Your task to perform on an android device: Search for "sony triple a" on amazon, select the first entry, add it to the cart, then select checkout. Image 0: 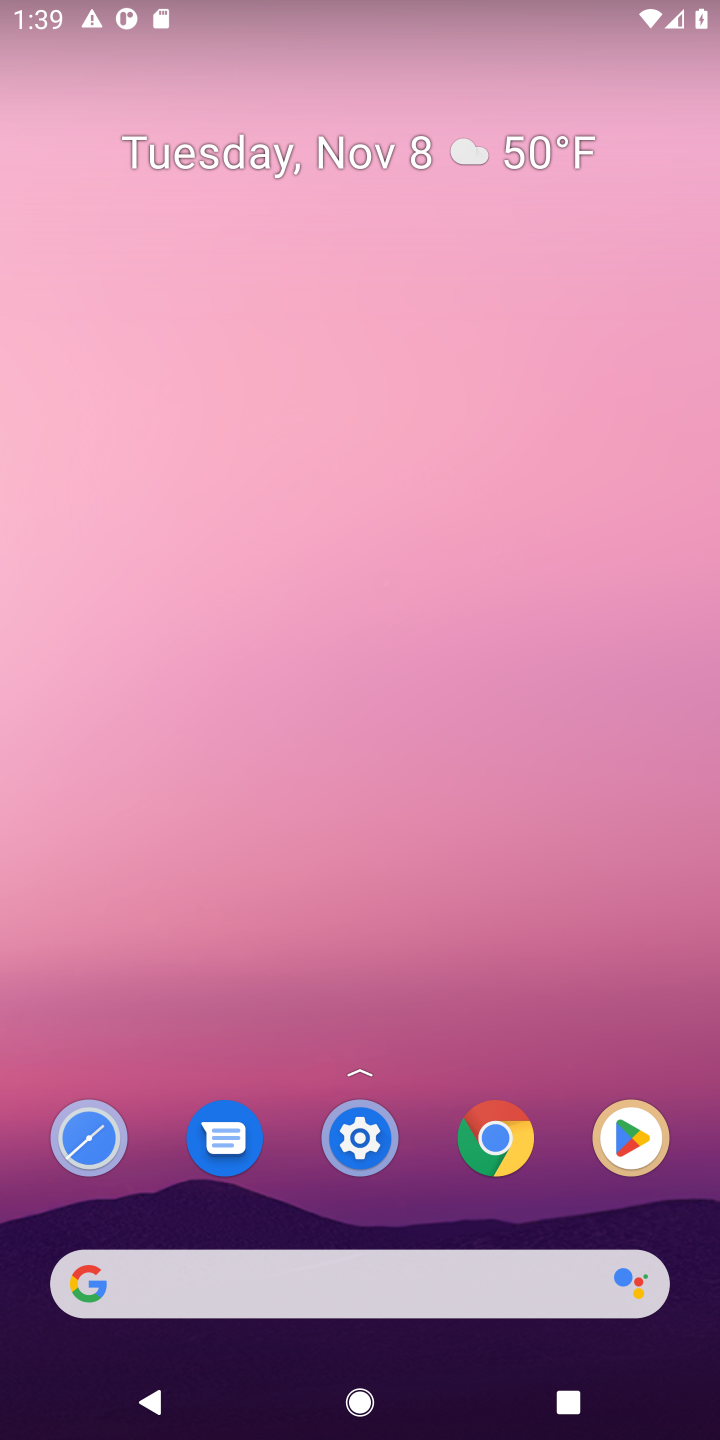
Step 0: click (240, 1279)
Your task to perform on an android device: Search for "sony triple a" on amazon, select the first entry, add it to the cart, then select checkout. Image 1: 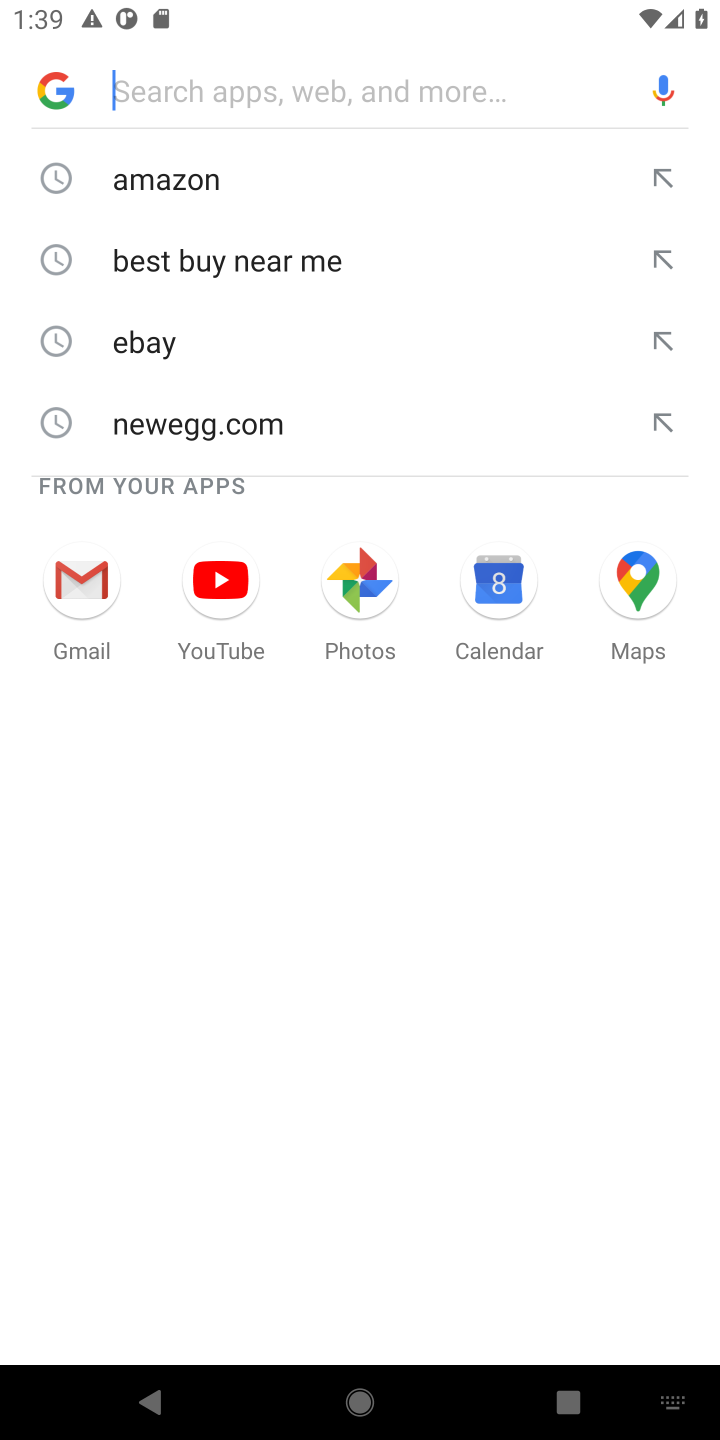
Step 1: click (223, 198)
Your task to perform on an android device: Search for "sony triple a" on amazon, select the first entry, add it to the cart, then select checkout. Image 2: 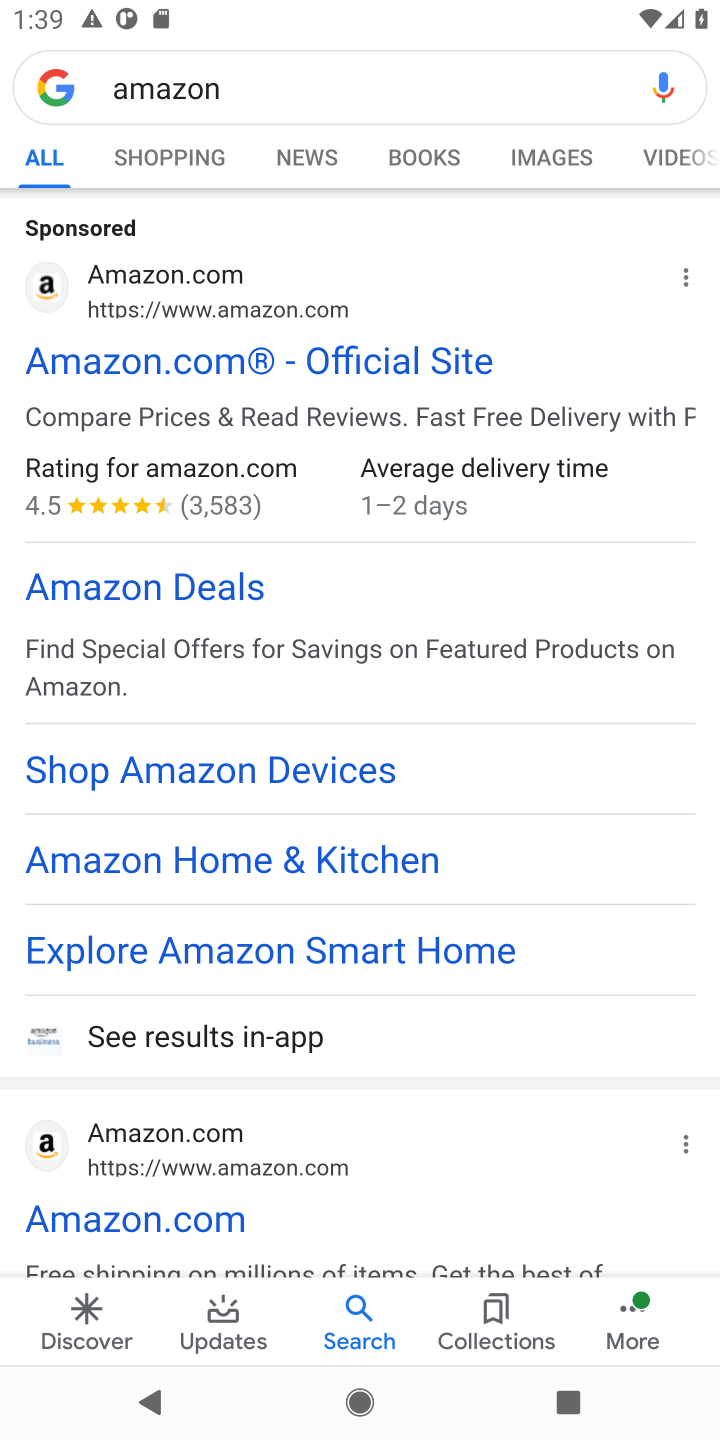
Step 2: click (196, 289)
Your task to perform on an android device: Search for "sony triple a" on amazon, select the first entry, add it to the cart, then select checkout. Image 3: 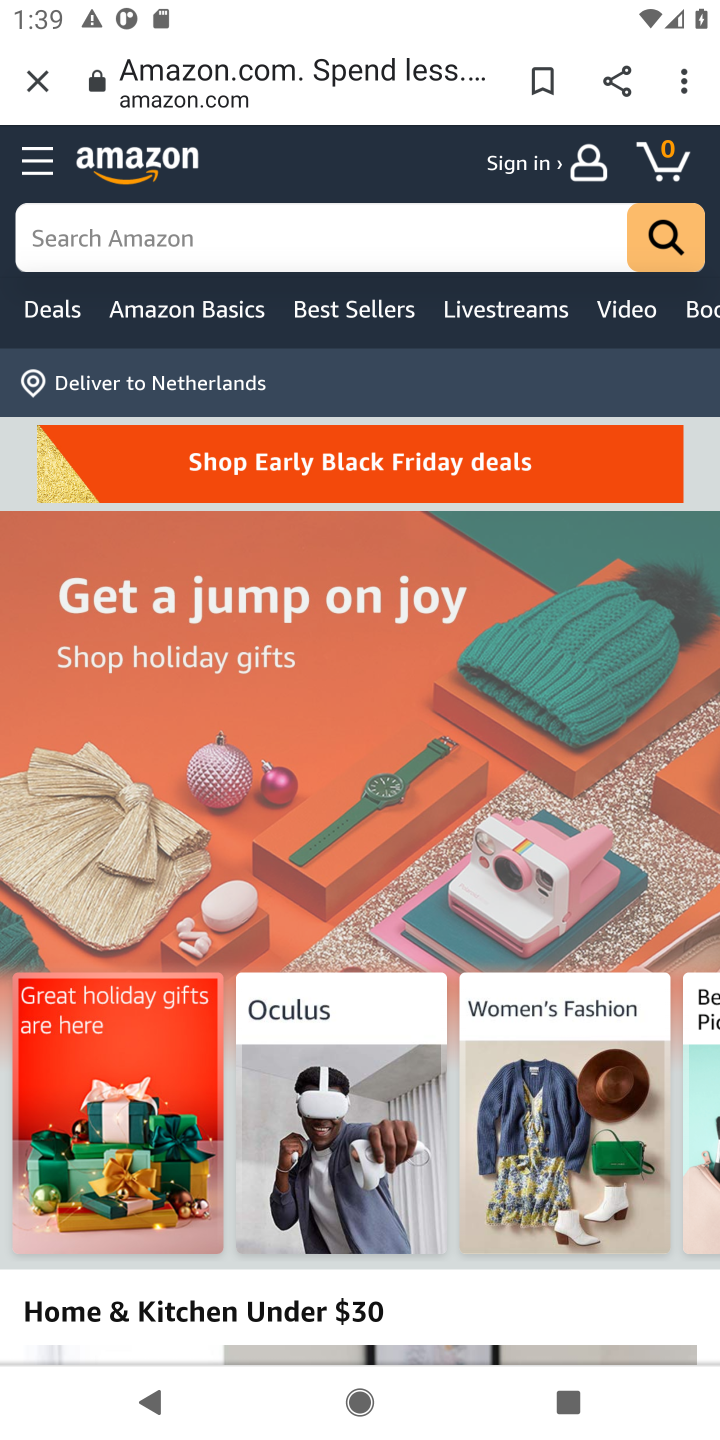
Step 3: click (378, 239)
Your task to perform on an android device: Search for "sony triple a" on amazon, select the first entry, add it to the cart, then select checkout. Image 4: 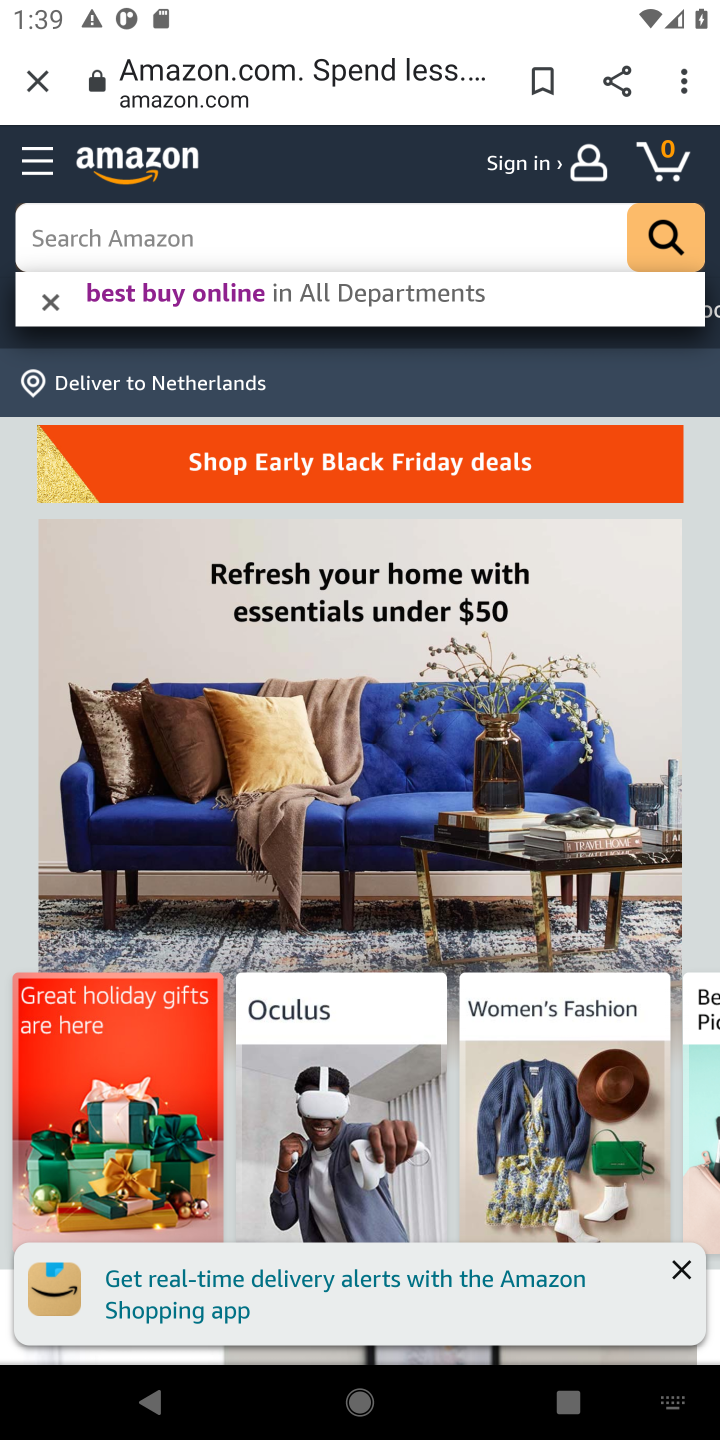
Step 4: type "sony triple aa"
Your task to perform on an android device: Search for "sony triple a" on amazon, select the first entry, add it to the cart, then select checkout. Image 5: 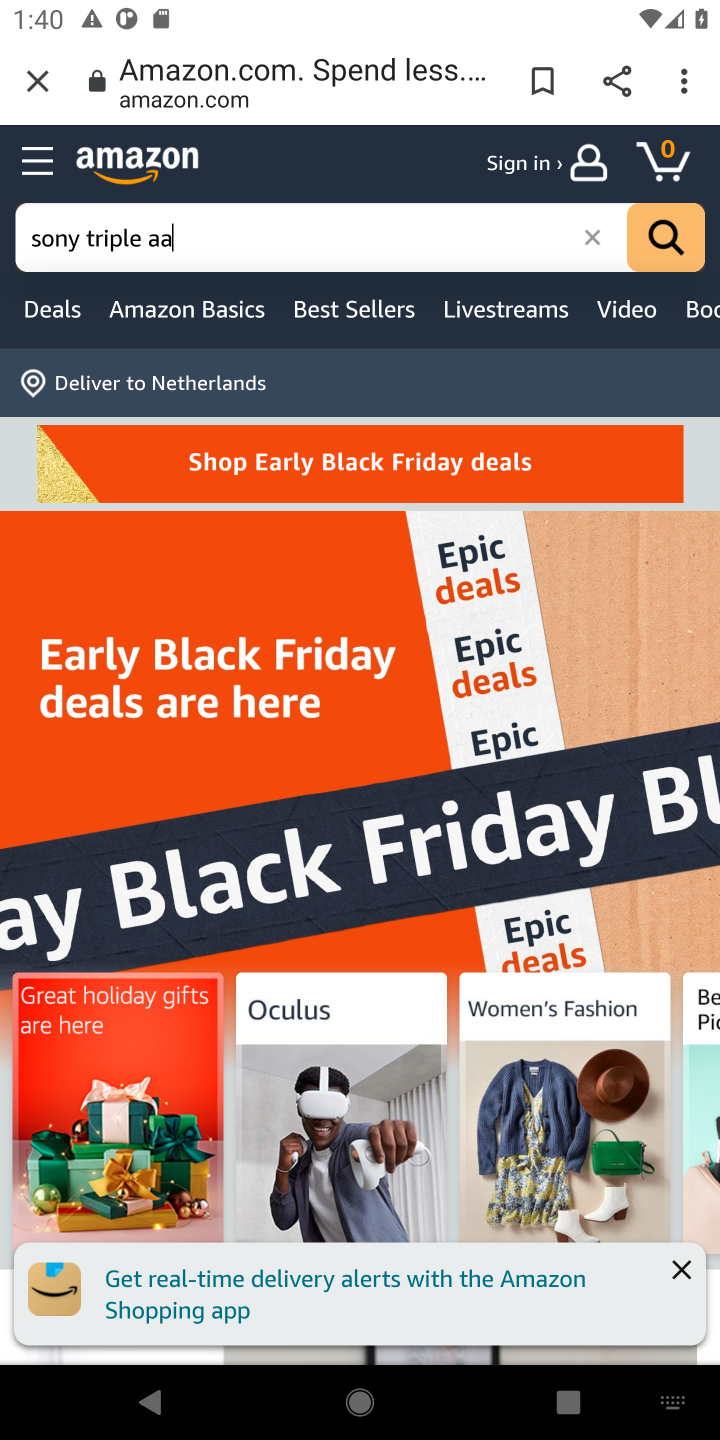
Step 5: type "a"
Your task to perform on an android device: Search for "sony triple a" on amazon, select the first entry, add it to the cart, then select checkout. Image 6: 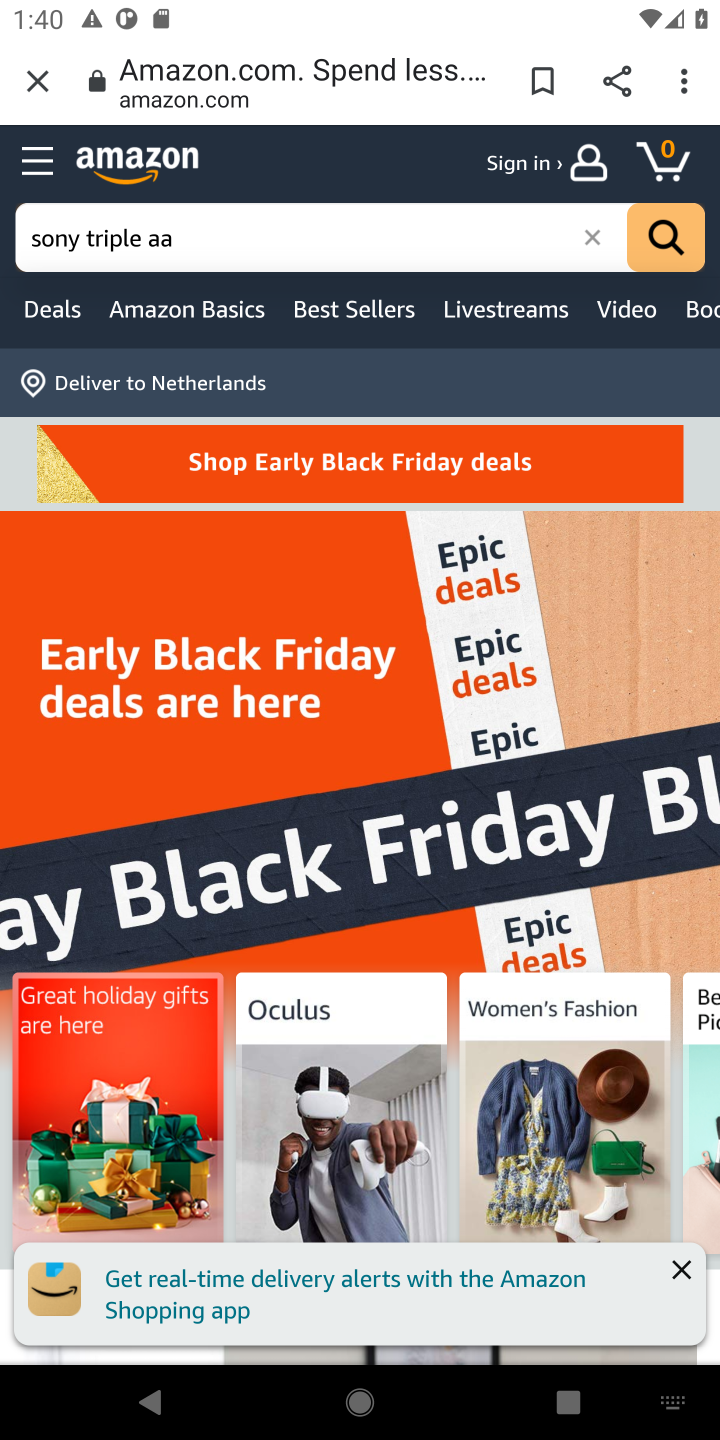
Step 6: click (670, 248)
Your task to perform on an android device: Search for "sony triple a" on amazon, select the first entry, add it to the cart, then select checkout. Image 7: 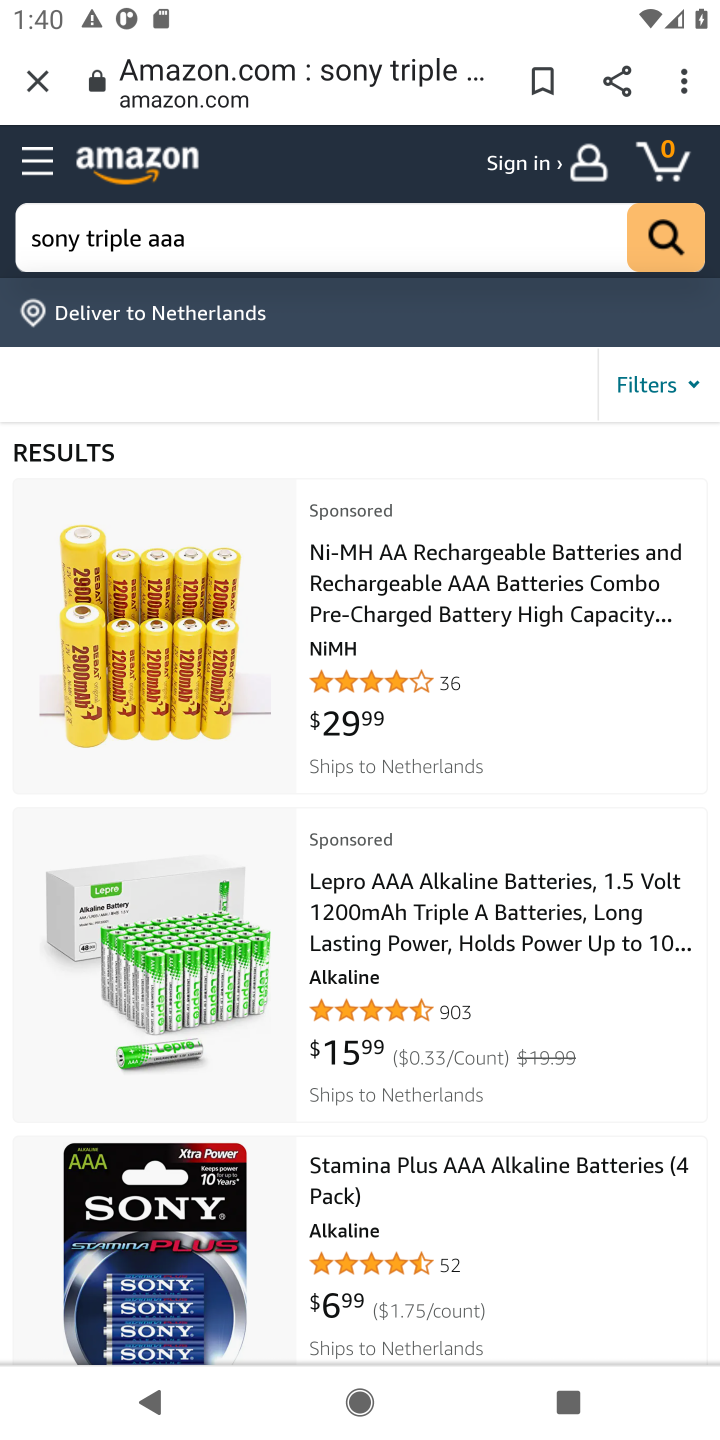
Step 7: click (492, 588)
Your task to perform on an android device: Search for "sony triple a" on amazon, select the first entry, add it to the cart, then select checkout. Image 8: 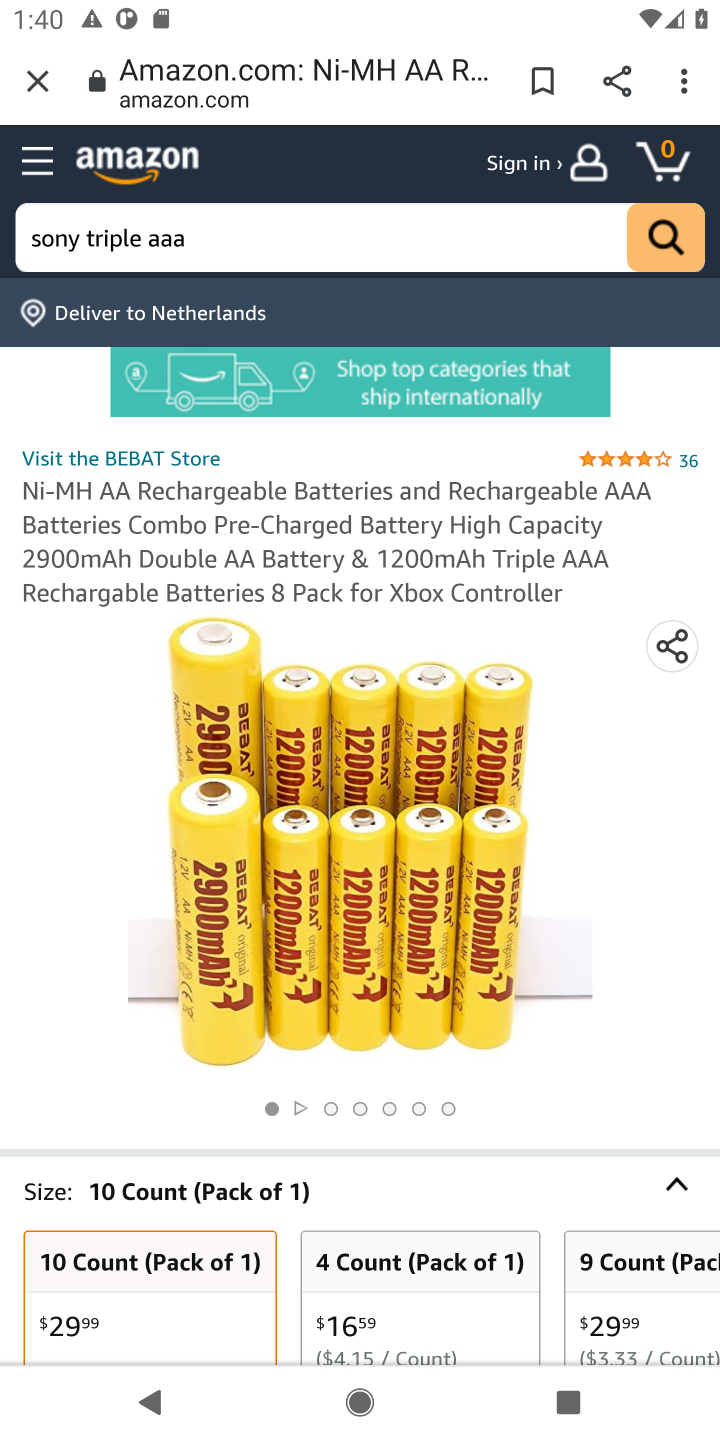
Step 8: drag from (621, 1104) to (497, 313)
Your task to perform on an android device: Search for "sony triple a" on amazon, select the first entry, add it to the cart, then select checkout. Image 9: 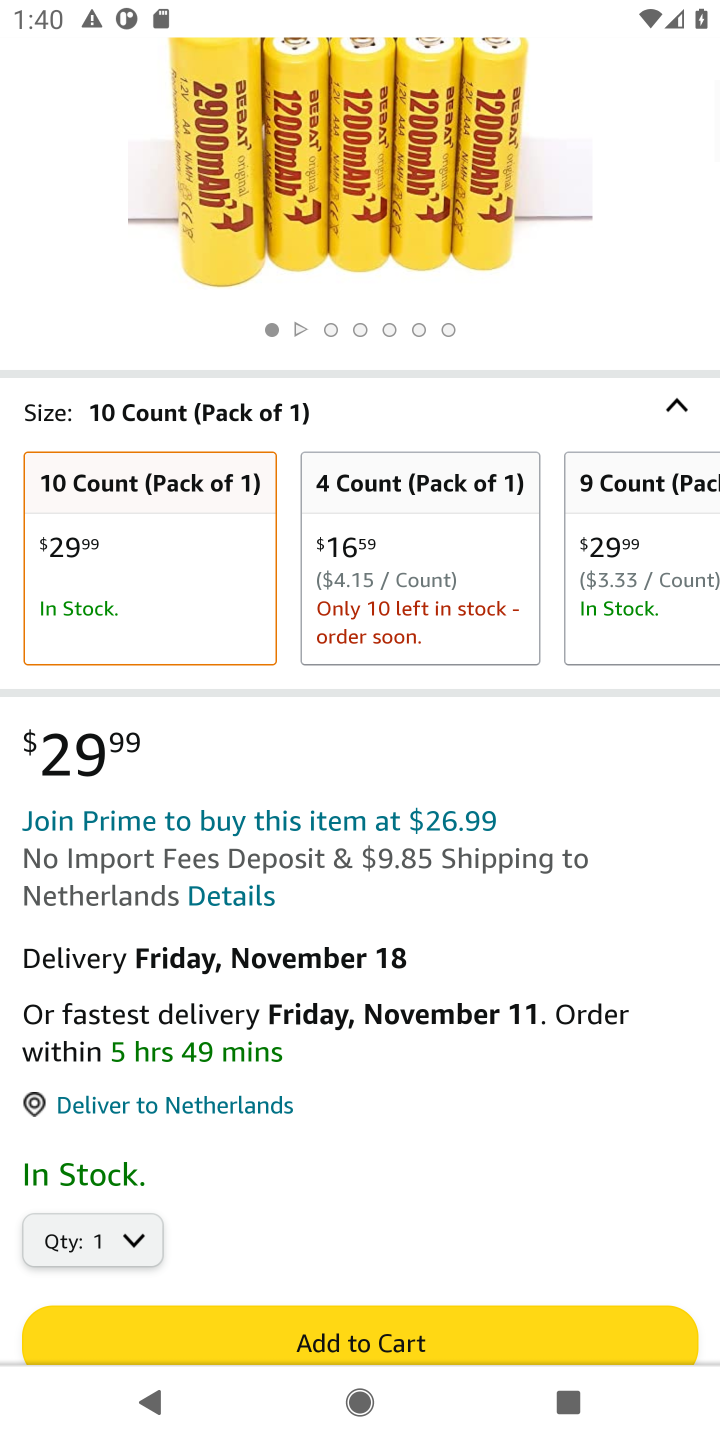
Step 9: drag from (467, 1237) to (492, 1111)
Your task to perform on an android device: Search for "sony triple a" on amazon, select the first entry, add it to the cart, then select checkout. Image 10: 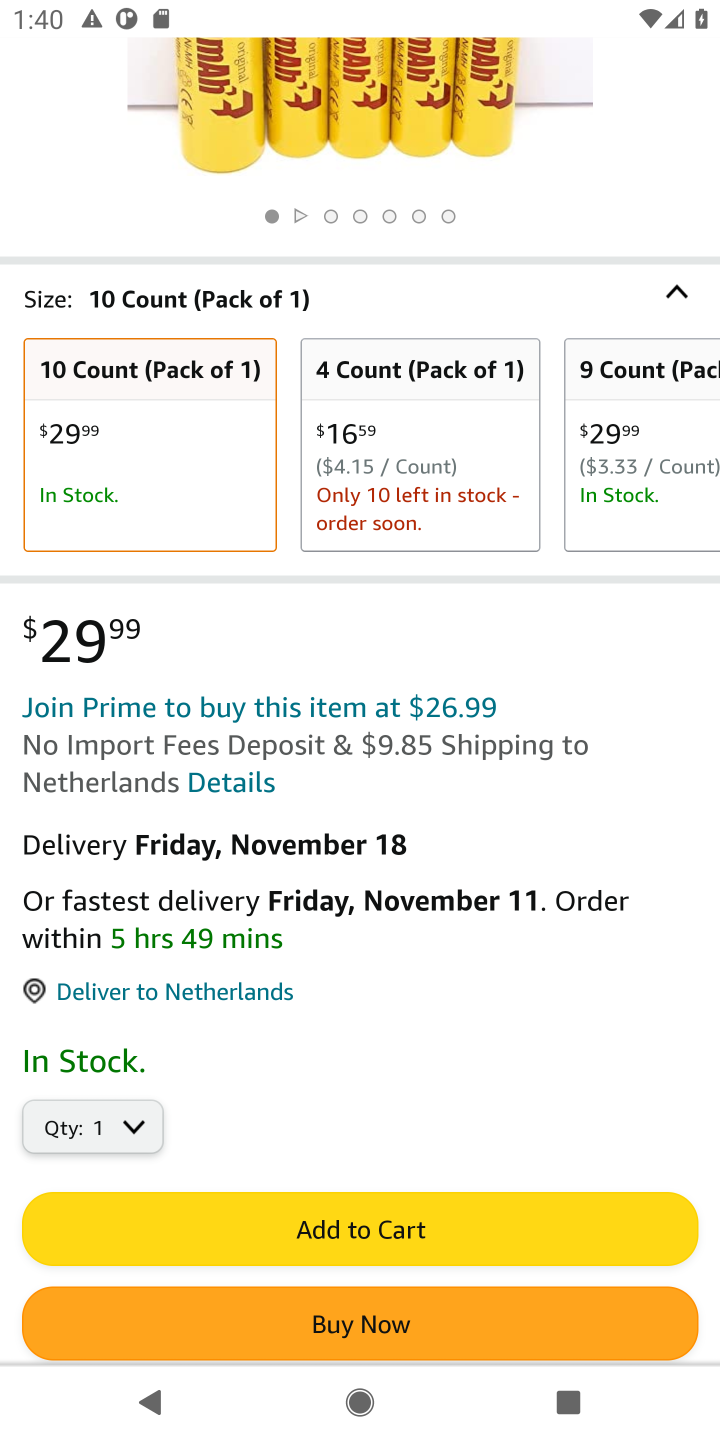
Step 10: click (425, 1260)
Your task to perform on an android device: Search for "sony triple a" on amazon, select the first entry, add it to the cart, then select checkout. Image 11: 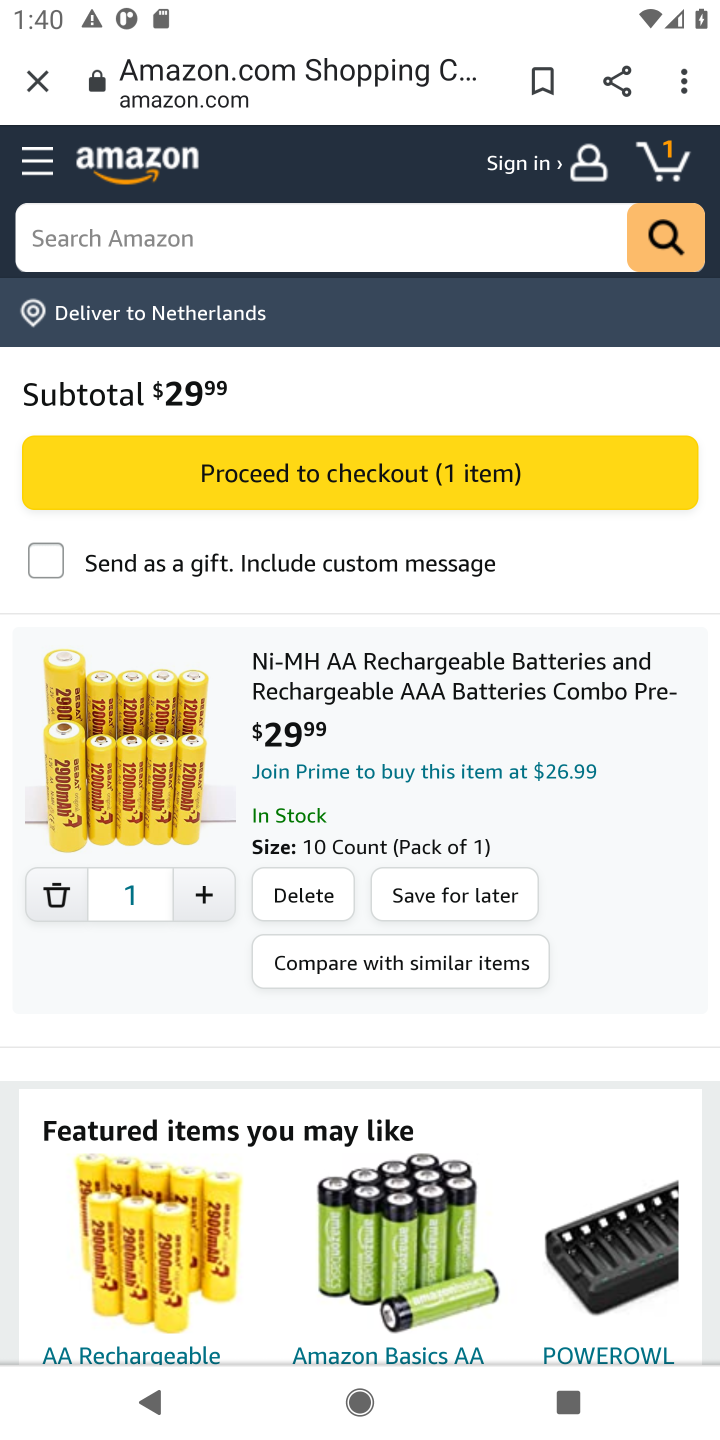
Step 11: task complete